Your task to perform on an android device: Open ESPN.com Image 0: 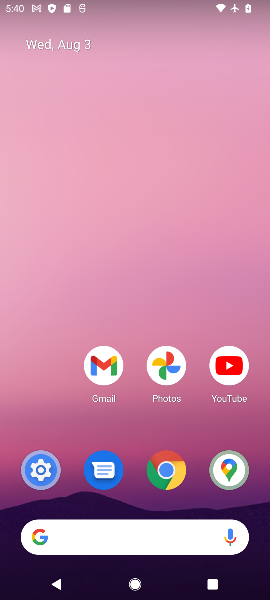
Step 0: drag from (66, 393) to (152, 25)
Your task to perform on an android device: Open ESPN.com Image 1: 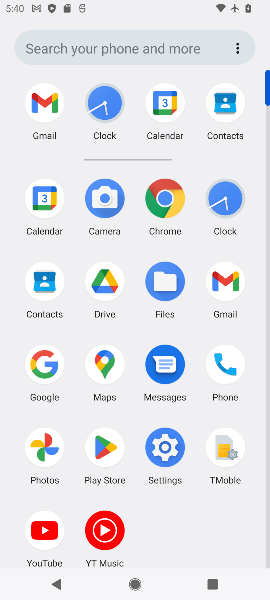
Step 1: click (166, 192)
Your task to perform on an android device: Open ESPN.com Image 2: 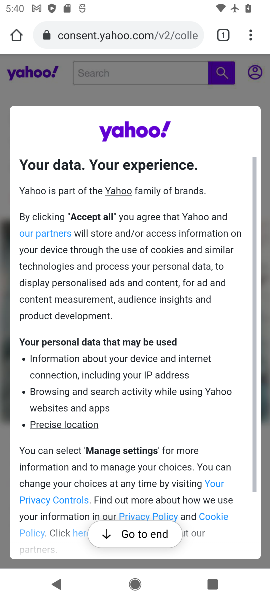
Step 2: click (171, 36)
Your task to perform on an android device: Open ESPN.com Image 3: 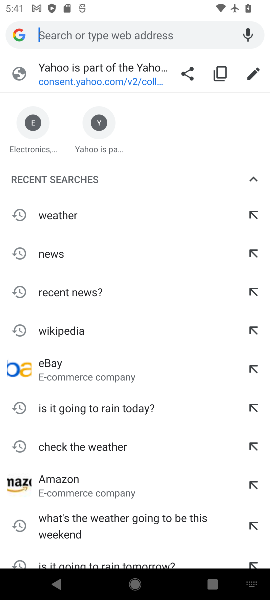
Step 3: type "ESPN.com"
Your task to perform on an android device: Open ESPN.com Image 4: 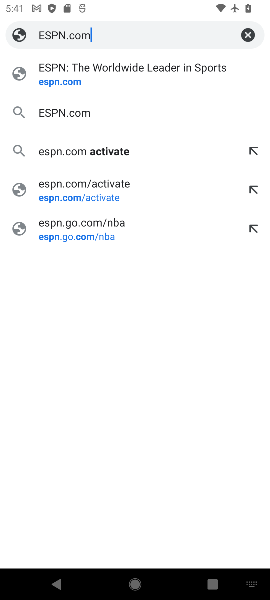
Step 4: click (68, 75)
Your task to perform on an android device: Open ESPN.com Image 5: 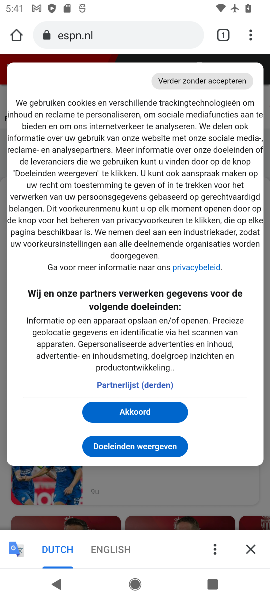
Step 5: task complete